Your task to perform on an android device: uninstall "Nova Launcher" Image 0: 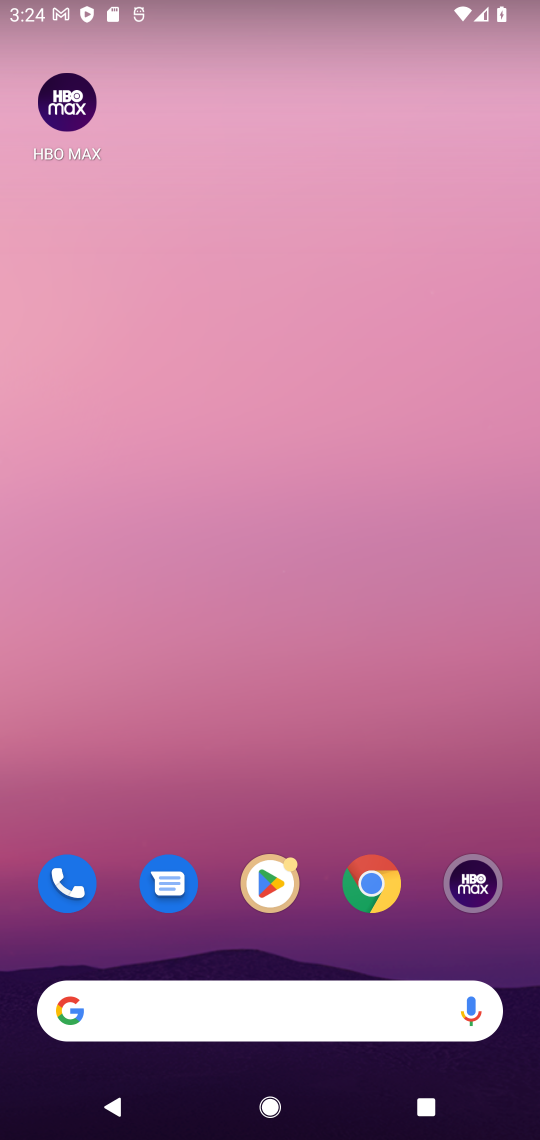
Step 0: press home button
Your task to perform on an android device: uninstall "Nova Launcher" Image 1: 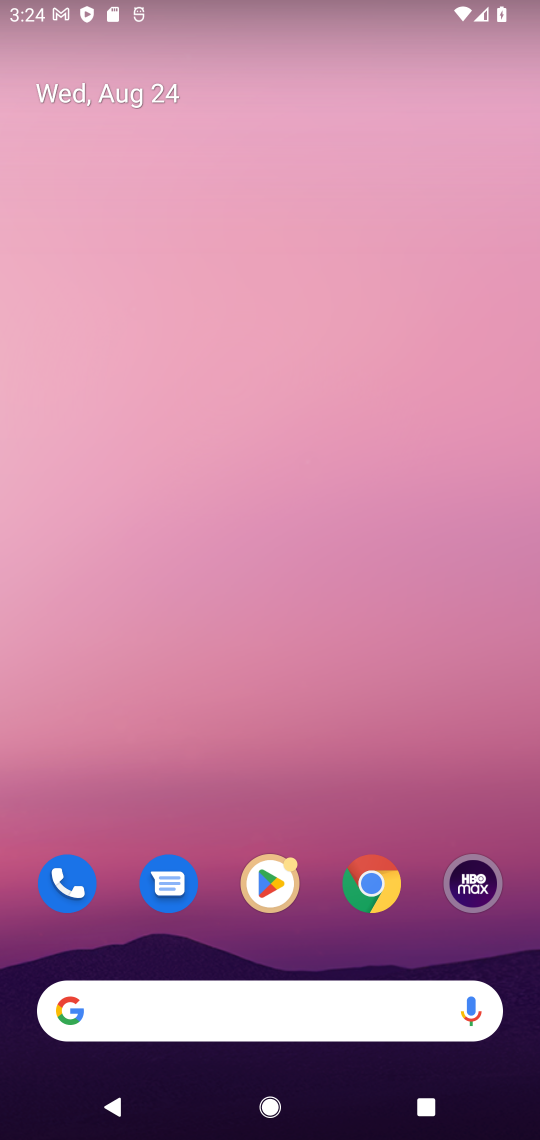
Step 1: drag from (230, 982) to (230, 280)
Your task to perform on an android device: uninstall "Nova Launcher" Image 2: 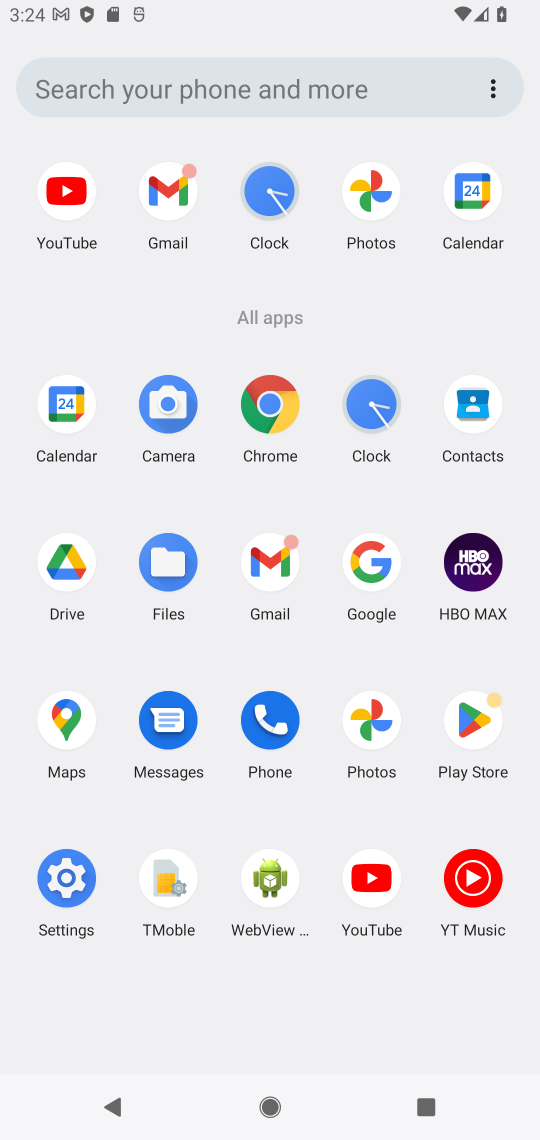
Step 2: click (444, 728)
Your task to perform on an android device: uninstall "Nova Launcher" Image 3: 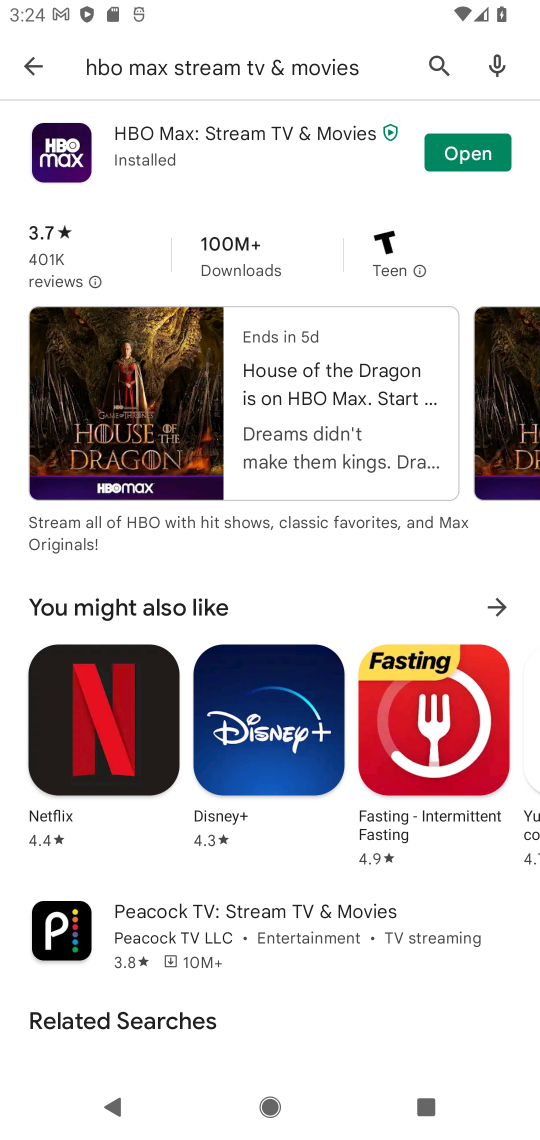
Step 3: click (439, 64)
Your task to perform on an android device: uninstall "Nova Launcher" Image 4: 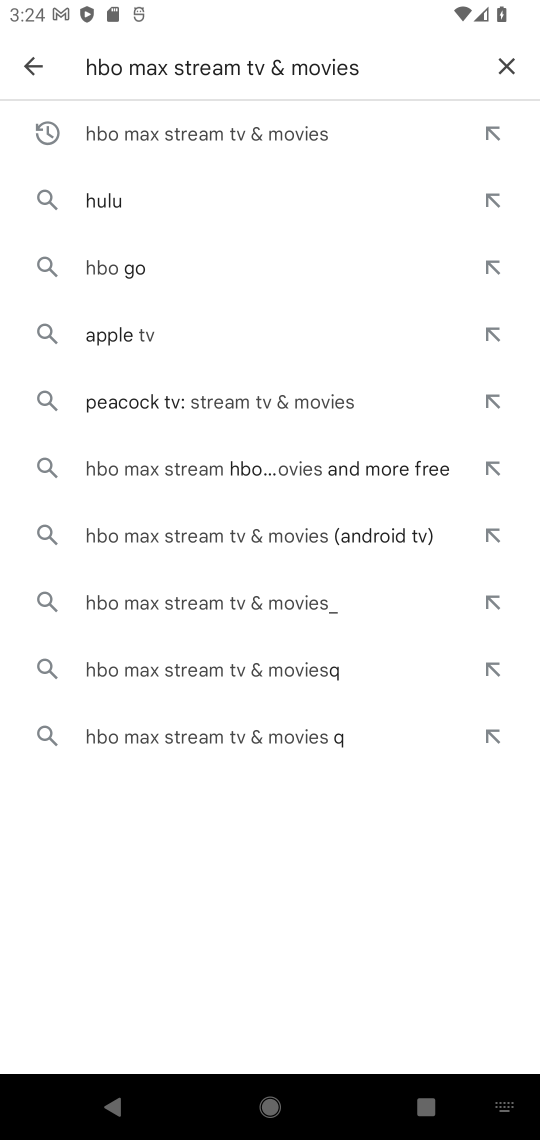
Step 4: click (499, 78)
Your task to perform on an android device: uninstall "Nova Launcher" Image 5: 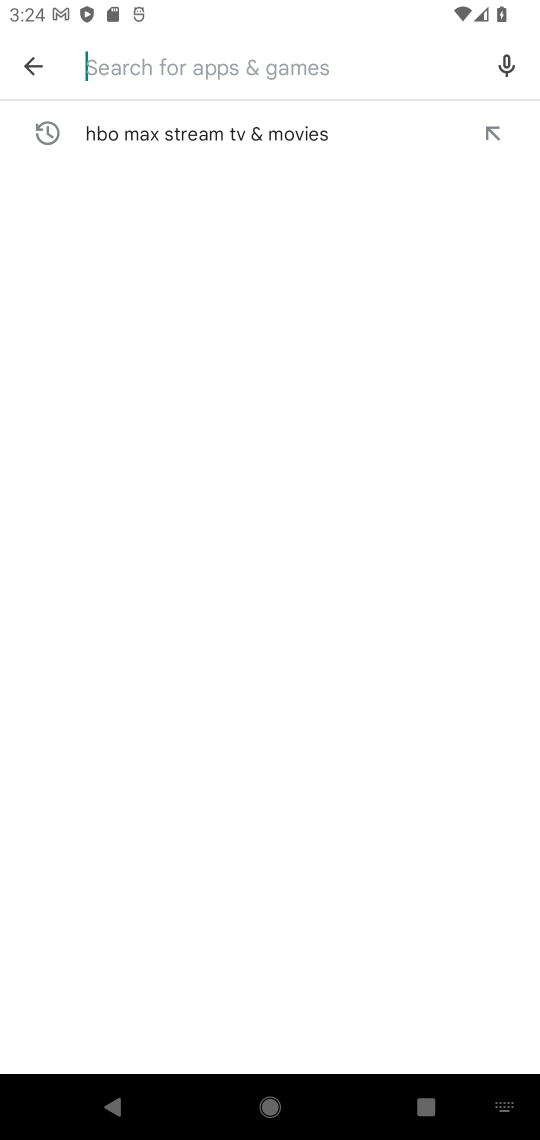
Step 5: type "Nova Launcher"
Your task to perform on an android device: uninstall "Nova Launcher" Image 6: 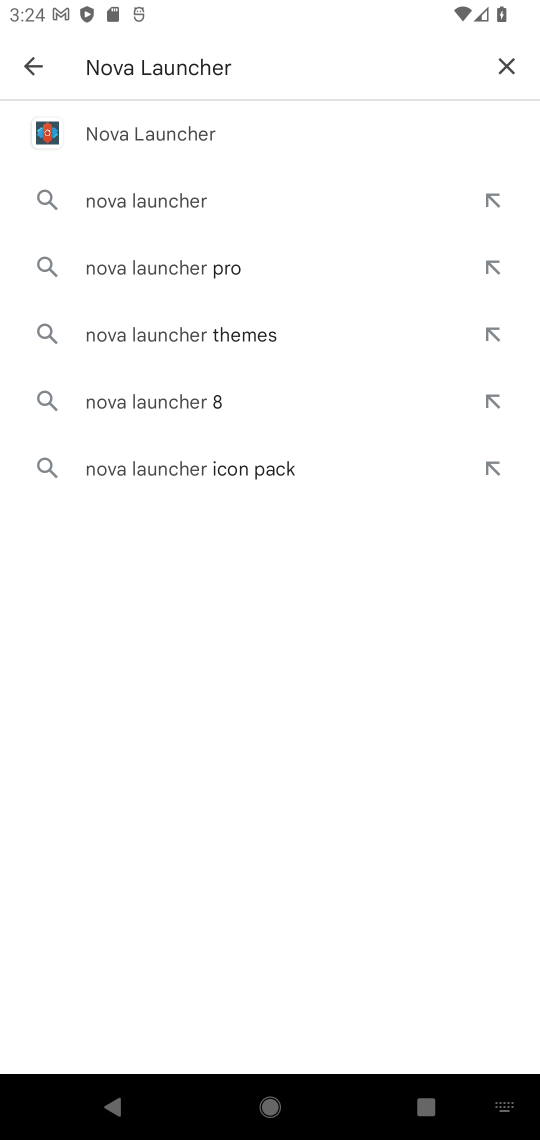
Step 6: click (186, 132)
Your task to perform on an android device: uninstall "Nova Launcher" Image 7: 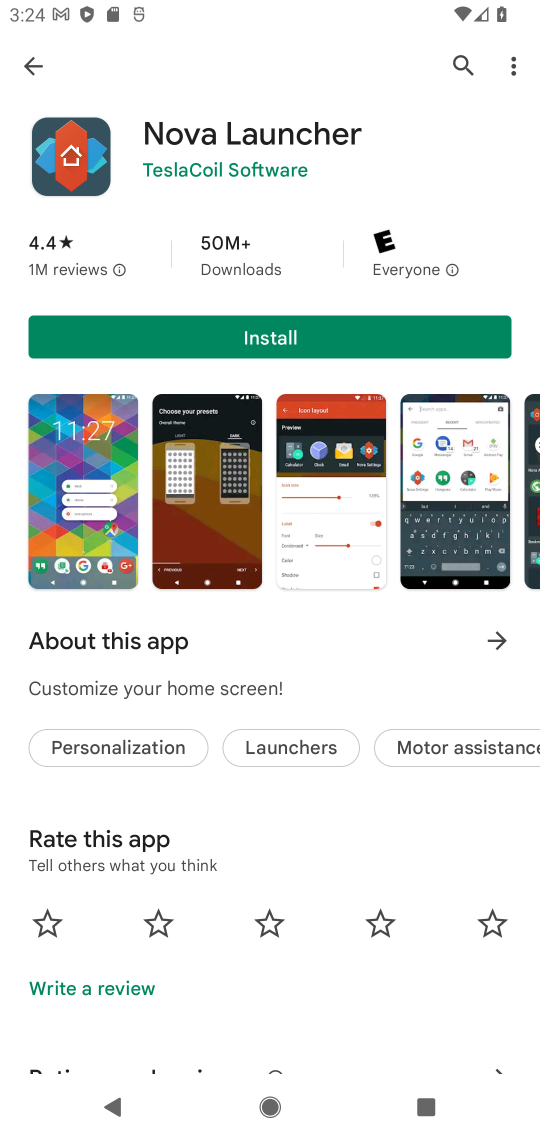
Step 7: click (264, 336)
Your task to perform on an android device: uninstall "Nova Launcher" Image 8: 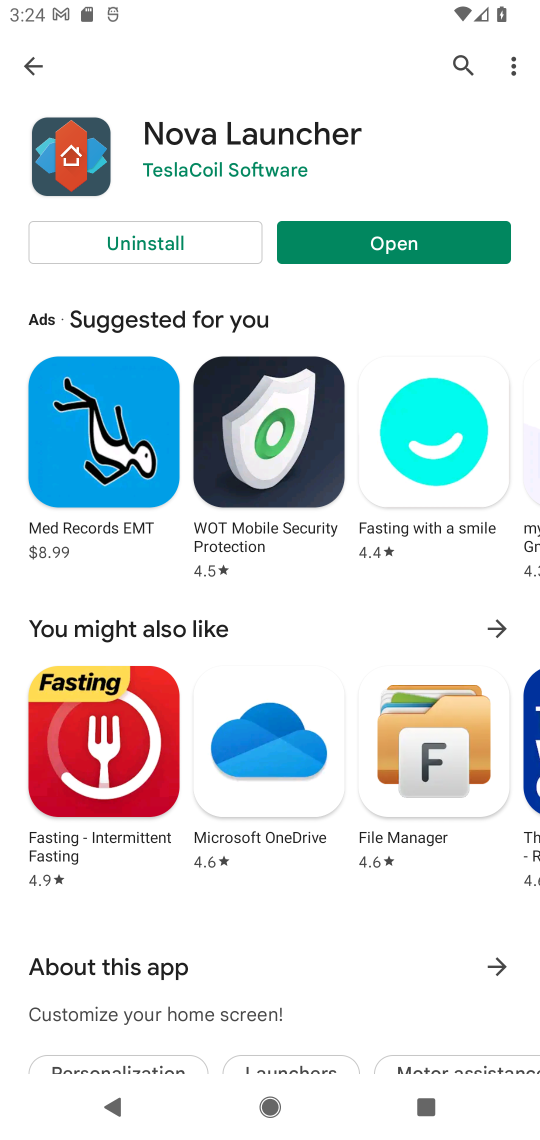
Step 8: click (447, 250)
Your task to perform on an android device: uninstall "Nova Launcher" Image 9: 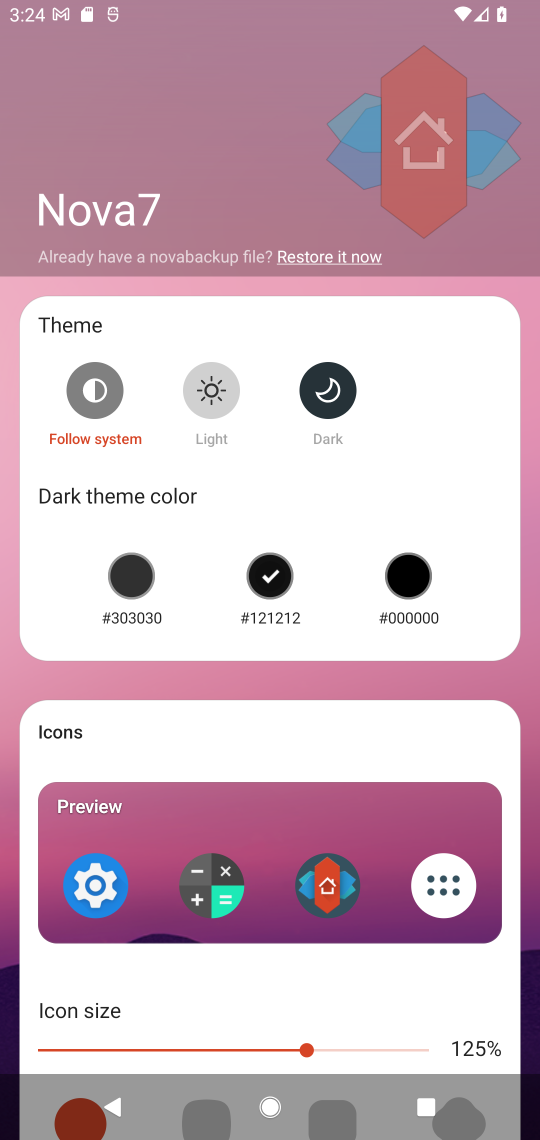
Step 9: task complete